Your task to perform on an android device: Open settings Image 0: 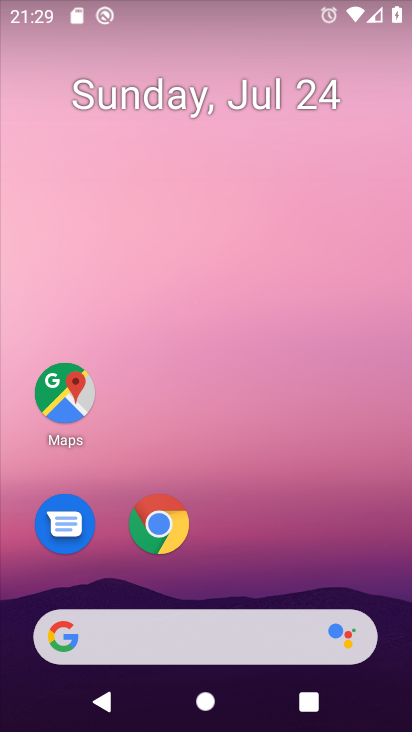
Step 0: drag from (281, 548) to (287, 14)
Your task to perform on an android device: Open settings Image 1: 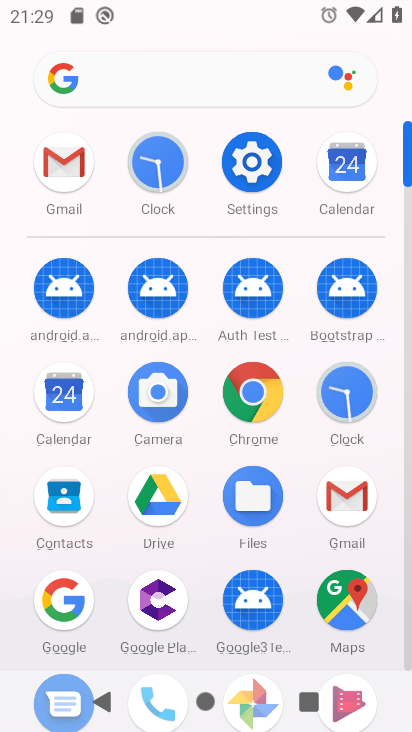
Step 1: click (263, 146)
Your task to perform on an android device: Open settings Image 2: 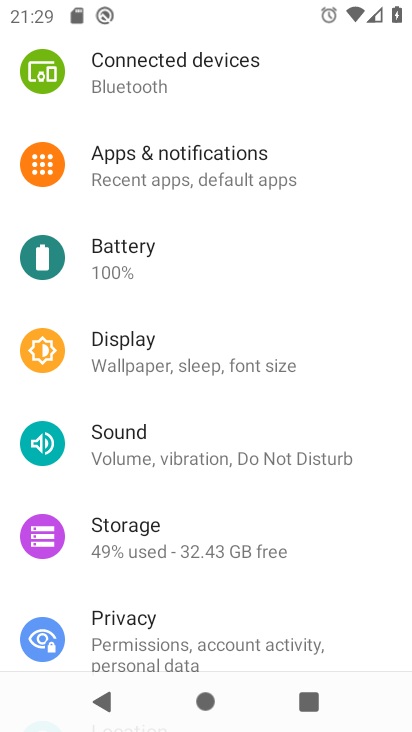
Step 2: task complete